Your task to perform on an android device: Go to display settings Image 0: 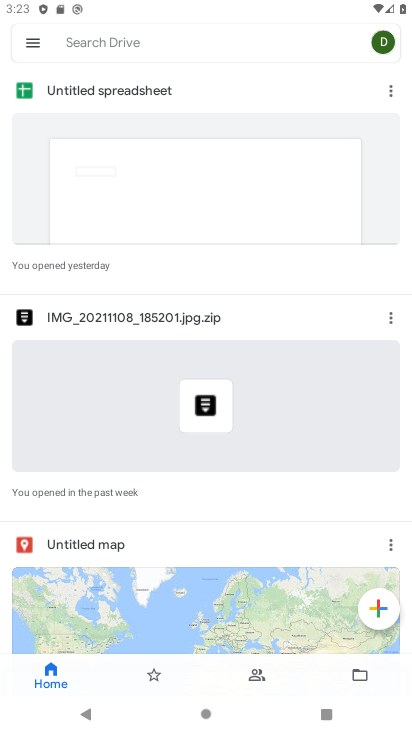
Step 0: press home button
Your task to perform on an android device: Go to display settings Image 1: 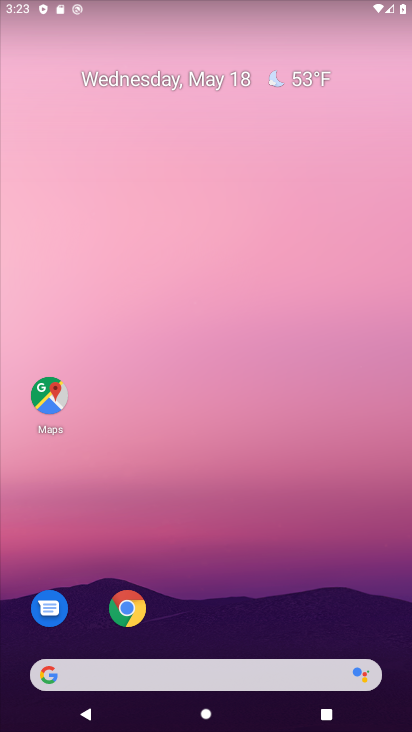
Step 1: drag from (262, 657) to (273, 2)
Your task to perform on an android device: Go to display settings Image 2: 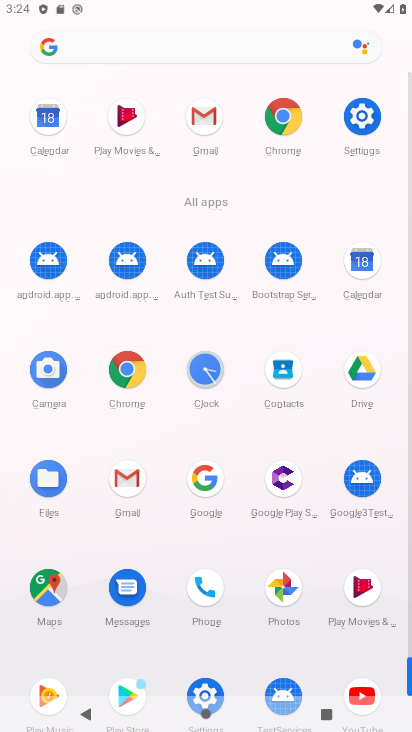
Step 2: click (350, 109)
Your task to perform on an android device: Go to display settings Image 3: 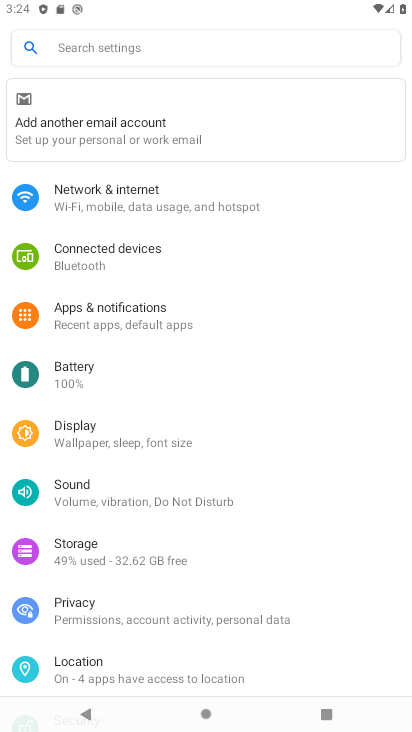
Step 3: click (140, 438)
Your task to perform on an android device: Go to display settings Image 4: 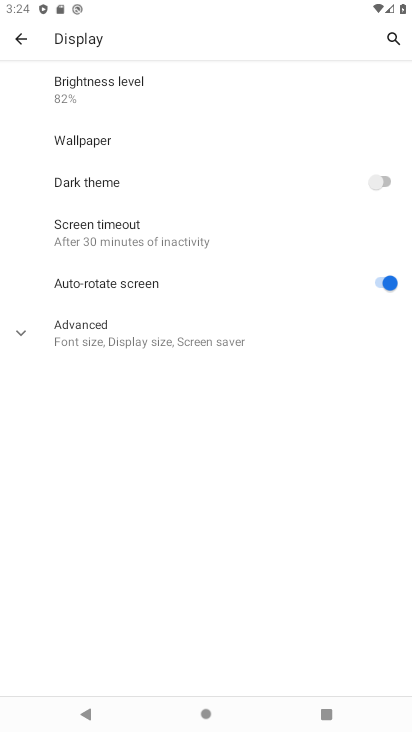
Step 4: task complete